Your task to perform on an android device: Search for the new Nintendo switch on Walmart. Image 0: 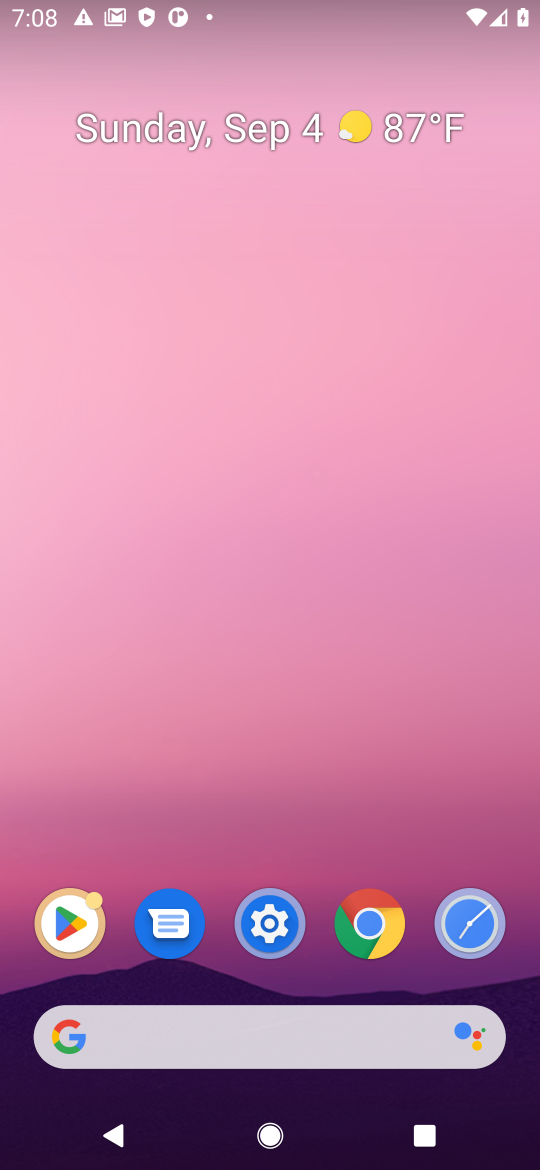
Step 0: press home button
Your task to perform on an android device: Search for the new Nintendo switch on Walmart. Image 1: 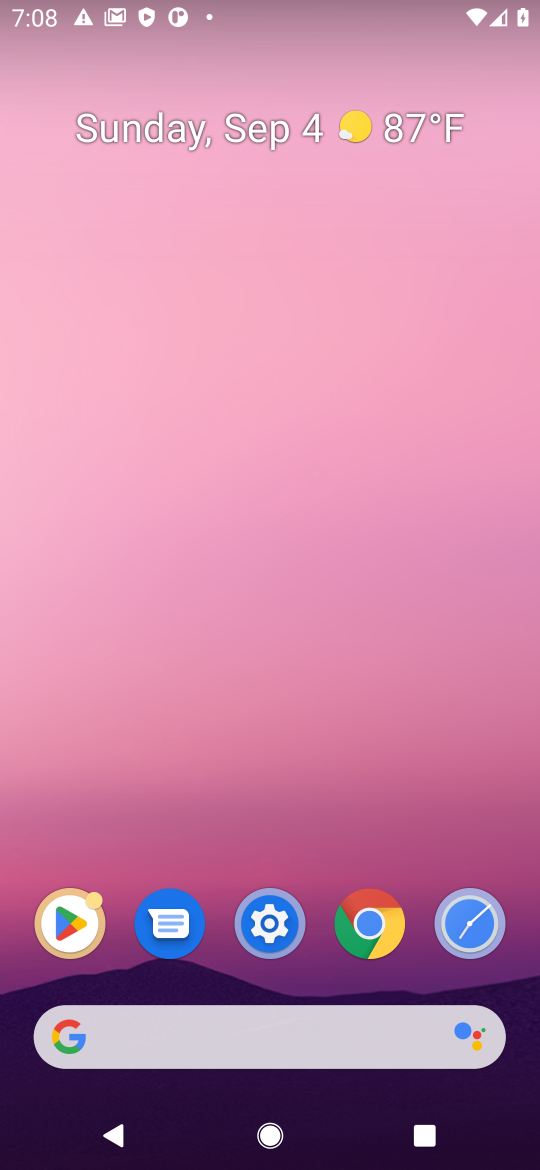
Step 1: click (332, 1031)
Your task to perform on an android device: Search for the new Nintendo switch on Walmart. Image 2: 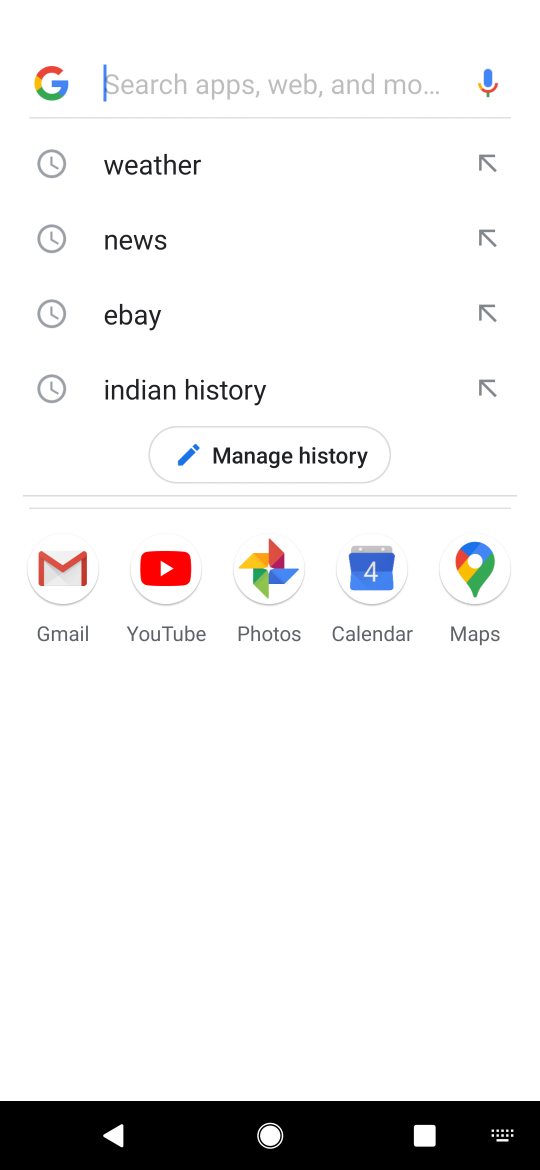
Step 2: press enter
Your task to perform on an android device: Search for the new Nintendo switch on Walmart. Image 3: 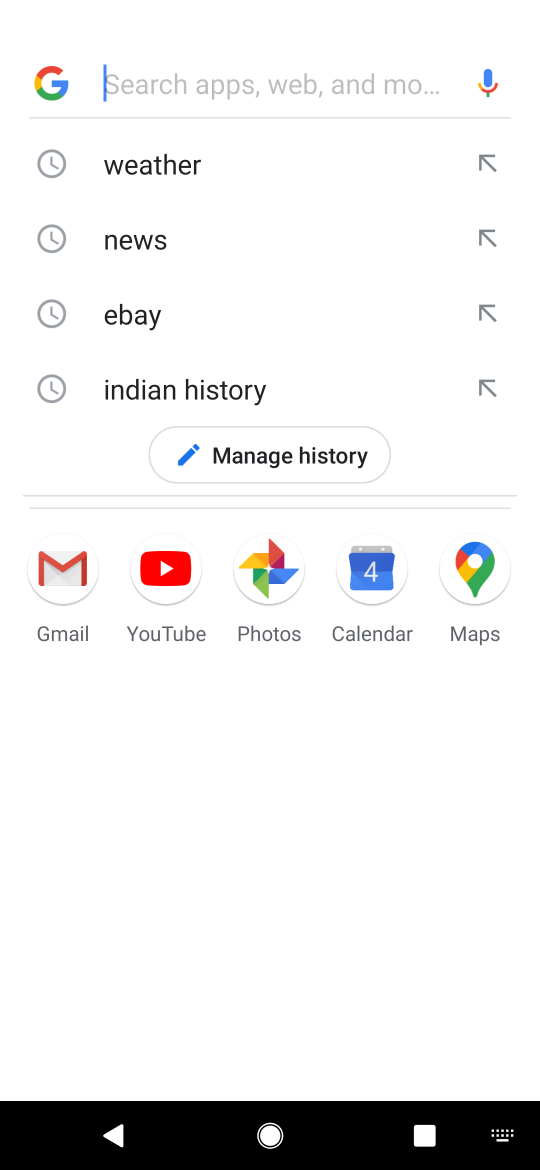
Step 3: type "walmart"
Your task to perform on an android device: Search for the new Nintendo switch on Walmart. Image 4: 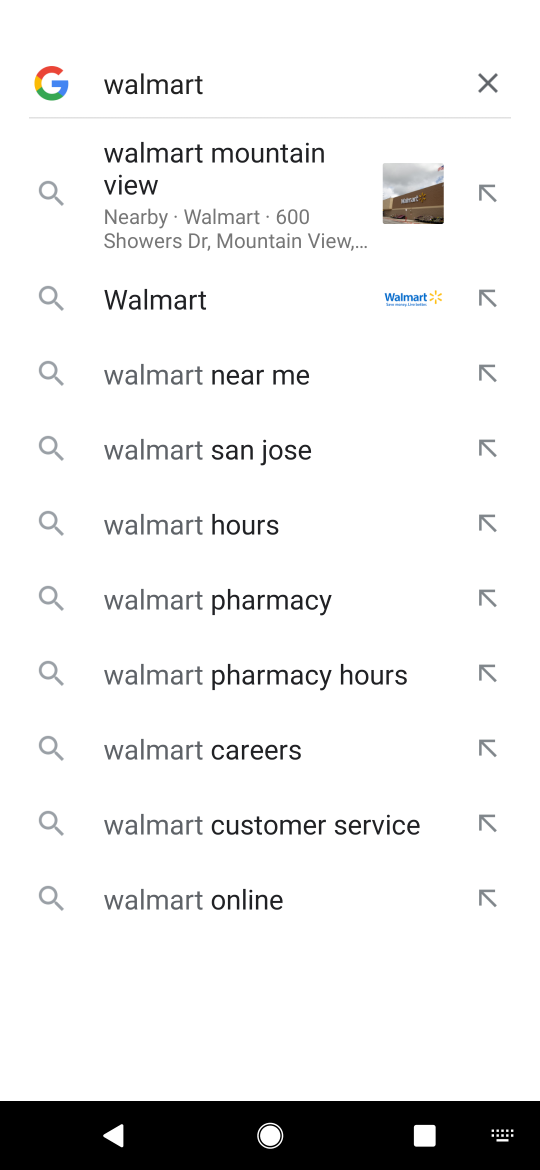
Step 4: click (185, 297)
Your task to perform on an android device: Search for the new Nintendo switch on Walmart. Image 5: 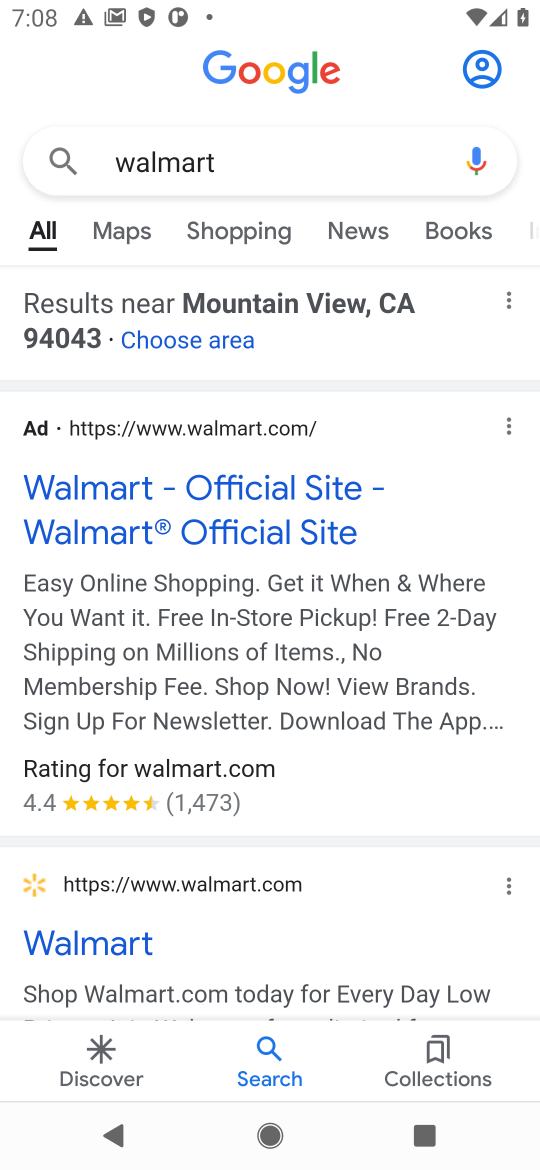
Step 5: click (266, 516)
Your task to perform on an android device: Search for the new Nintendo switch on Walmart. Image 6: 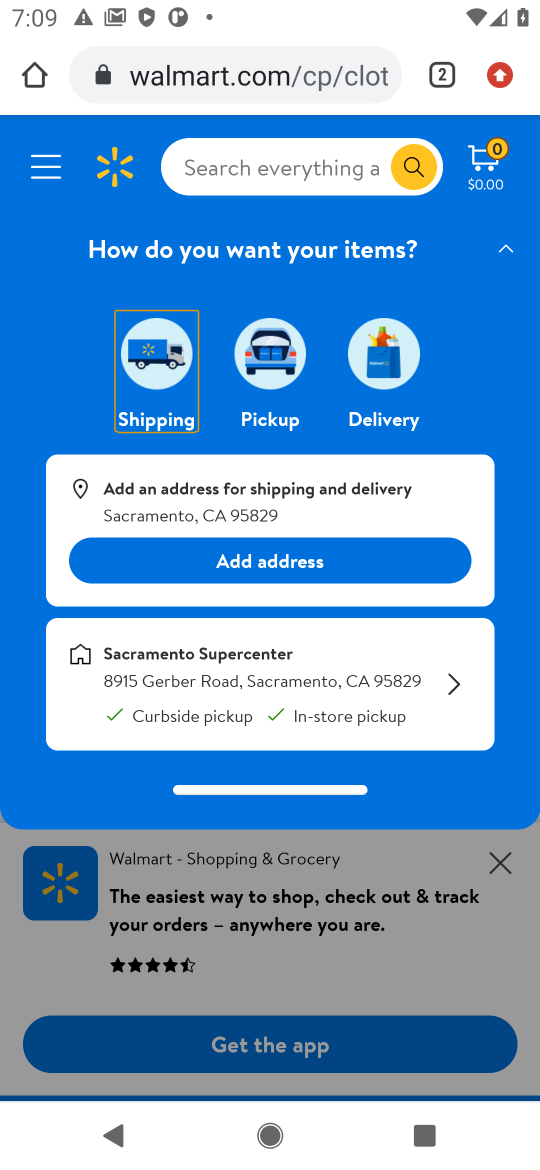
Step 6: click (222, 161)
Your task to perform on an android device: Search for the new Nintendo switch on Walmart. Image 7: 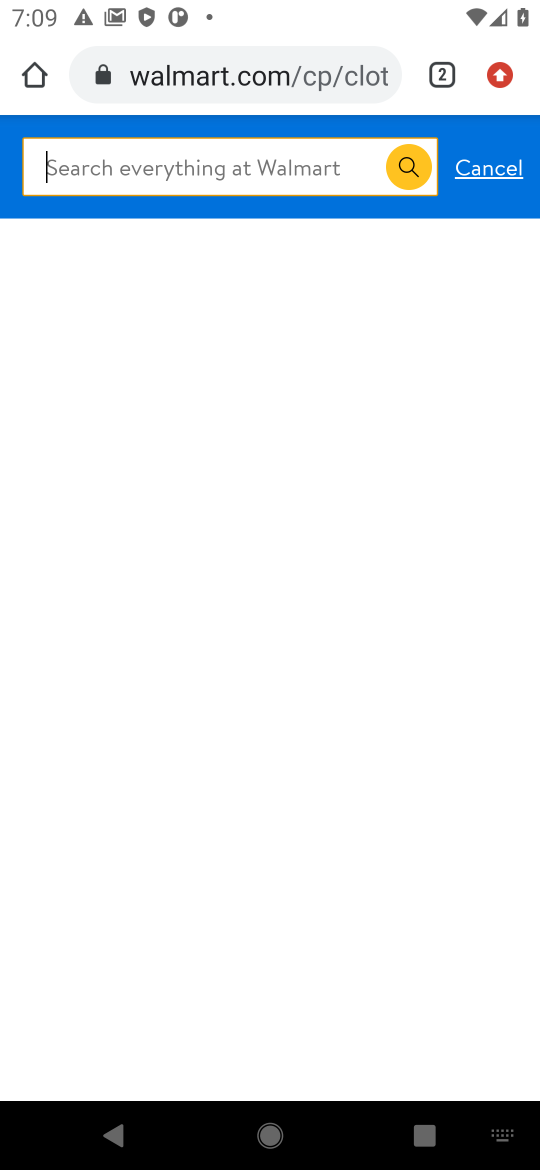
Step 7: press enter
Your task to perform on an android device: Search for the new Nintendo switch on Walmart. Image 8: 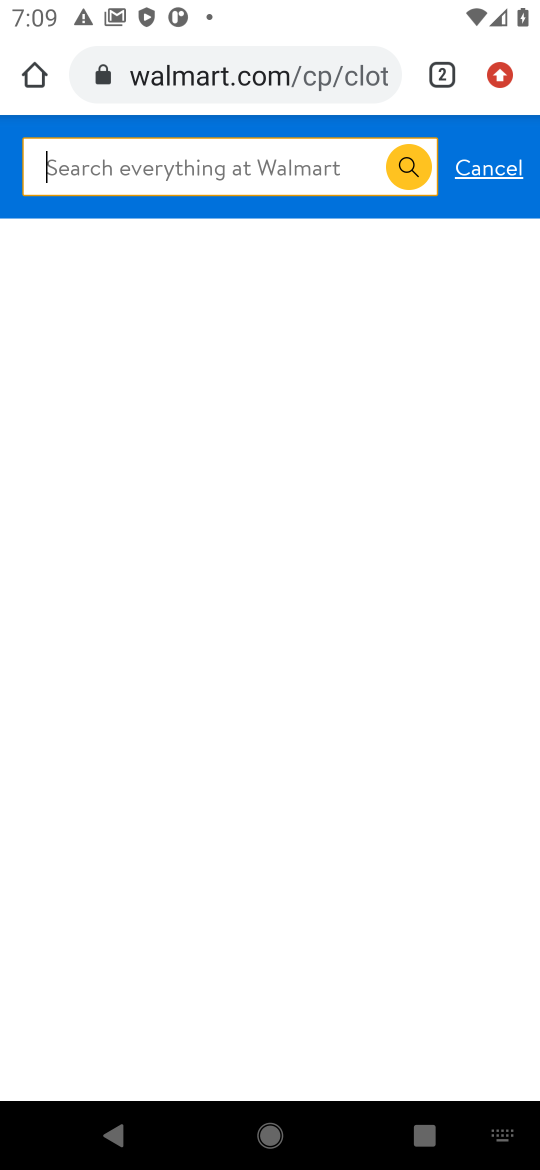
Step 8: type "nintendo switch"
Your task to perform on an android device: Search for the new Nintendo switch on Walmart. Image 9: 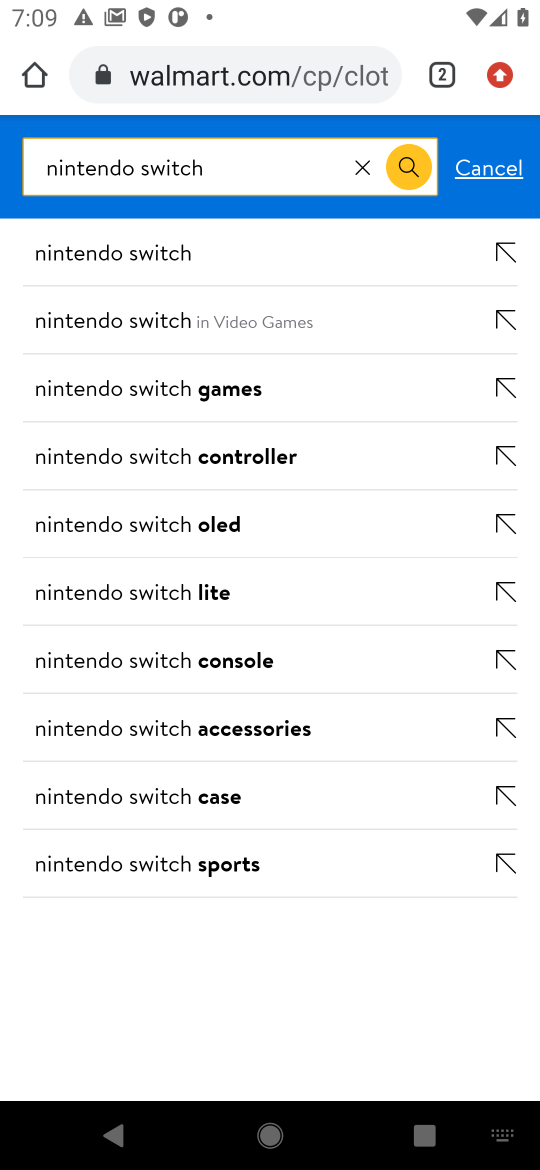
Step 9: click (193, 257)
Your task to perform on an android device: Search for the new Nintendo switch on Walmart. Image 10: 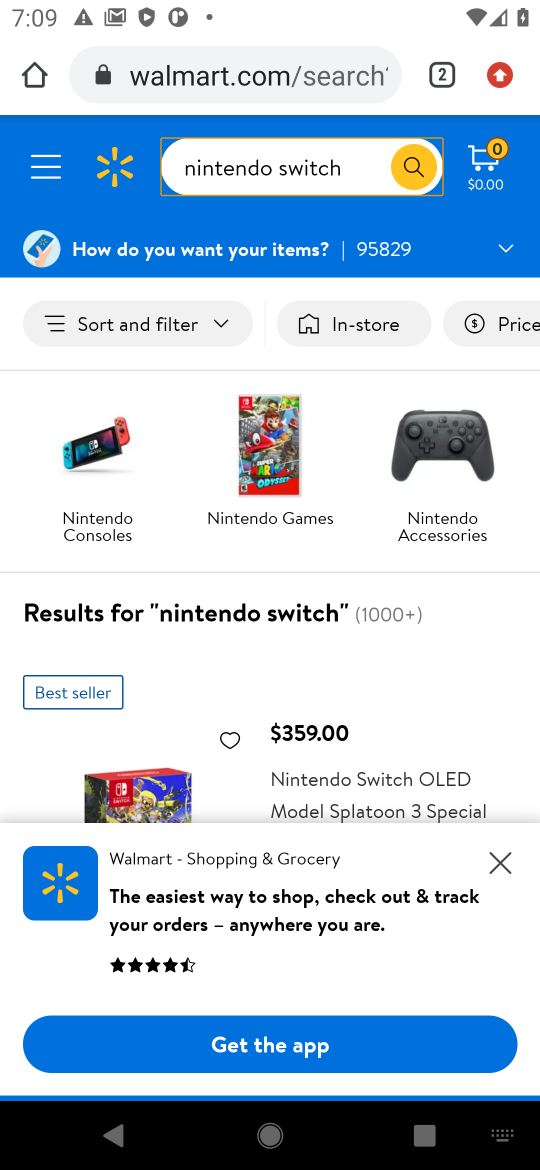
Step 10: click (497, 866)
Your task to perform on an android device: Search for the new Nintendo switch on Walmart. Image 11: 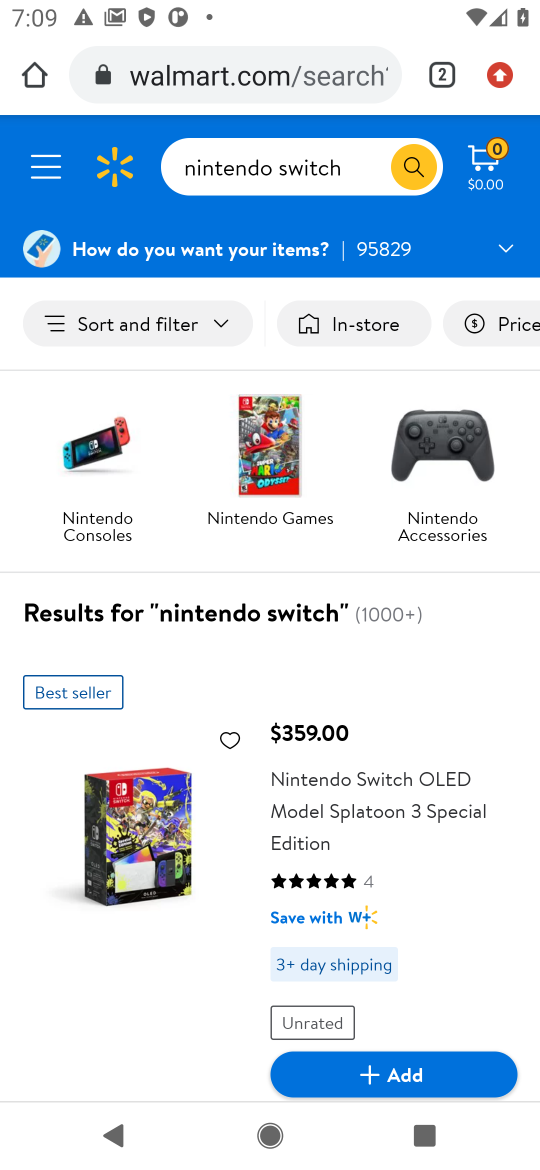
Step 11: task complete